Your task to perform on an android device: Go to ESPN.com Image 0: 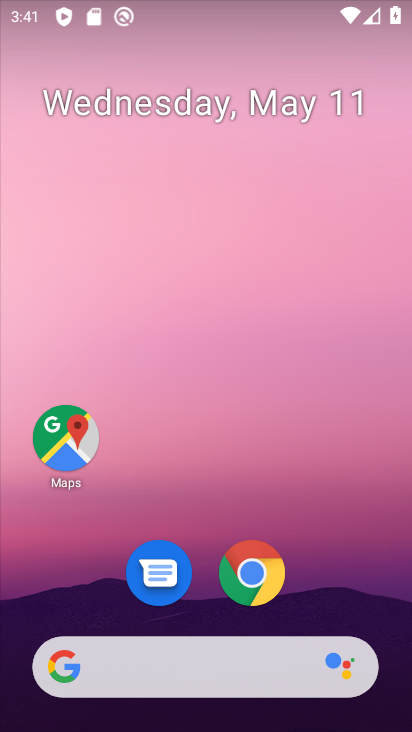
Step 0: click (254, 583)
Your task to perform on an android device: Go to ESPN.com Image 1: 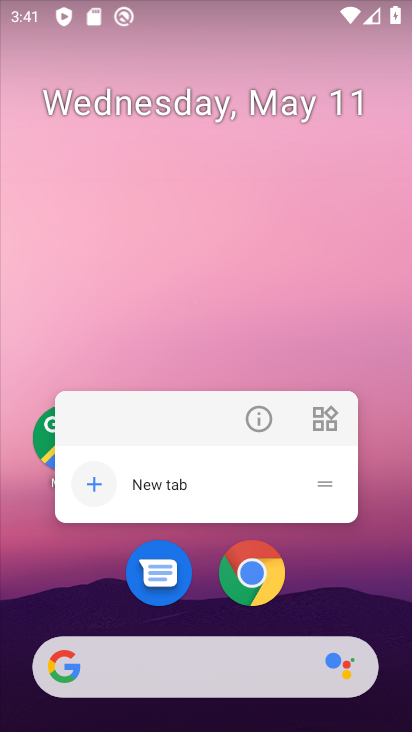
Step 1: click (252, 583)
Your task to perform on an android device: Go to ESPN.com Image 2: 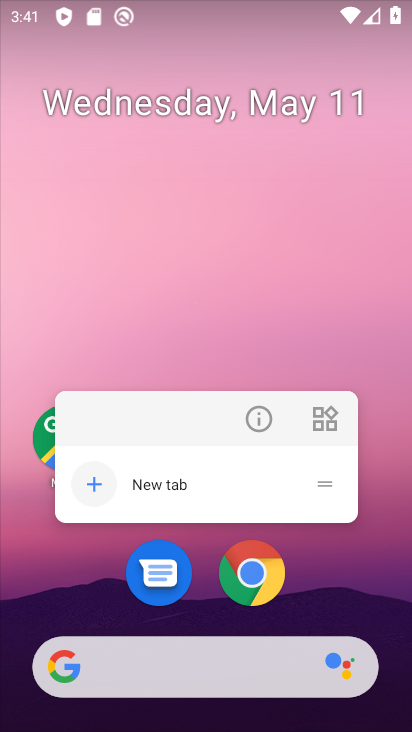
Step 2: click (266, 571)
Your task to perform on an android device: Go to ESPN.com Image 3: 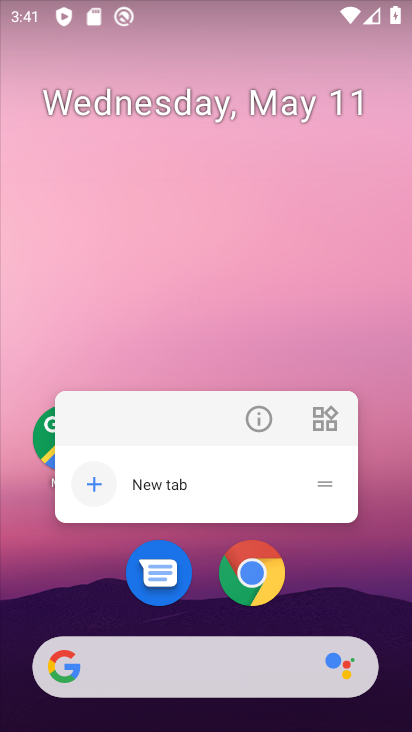
Step 3: click (256, 581)
Your task to perform on an android device: Go to ESPN.com Image 4: 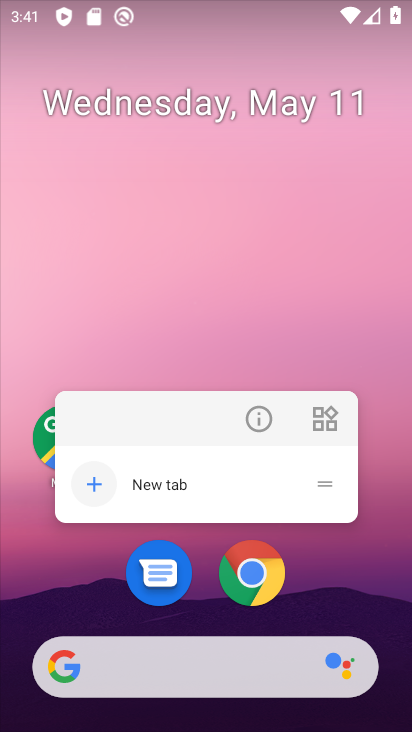
Step 4: click (259, 596)
Your task to perform on an android device: Go to ESPN.com Image 5: 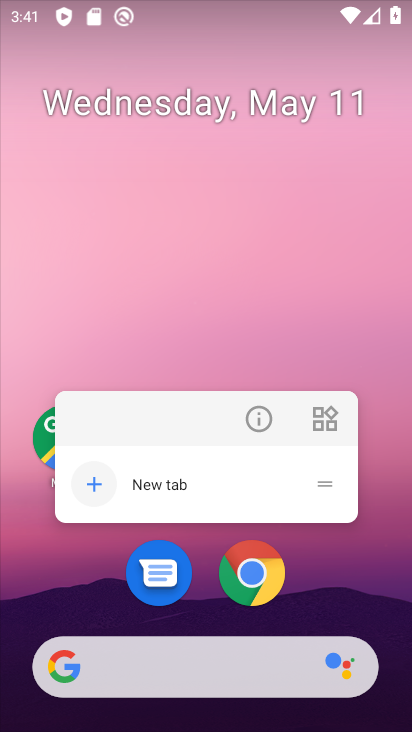
Step 5: click (257, 596)
Your task to perform on an android device: Go to ESPN.com Image 6: 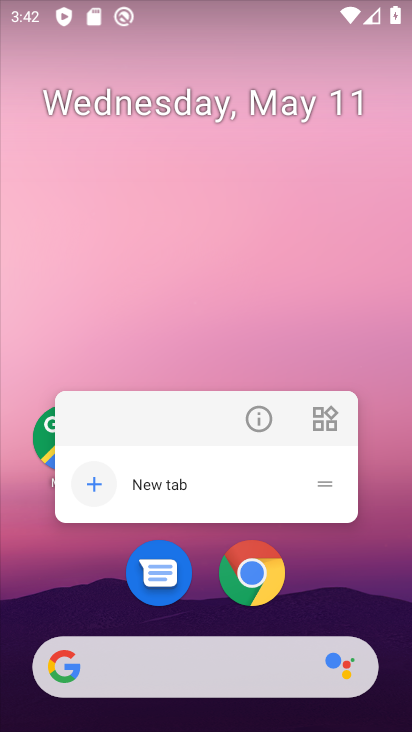
Step 6: click (255, 577)
Your task to perform on an android device: Go to ESPN.com Image 7: 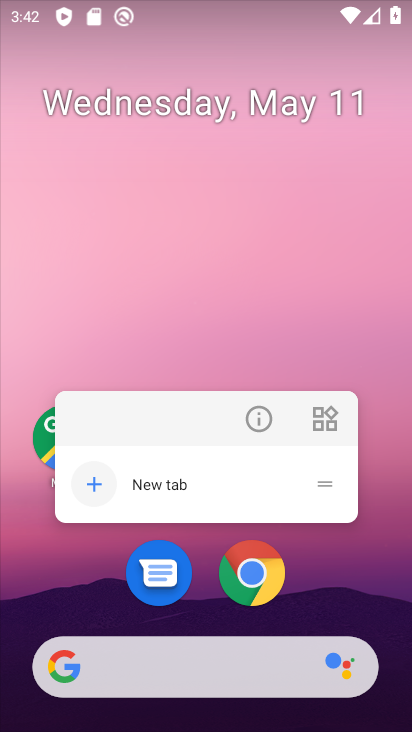
Step 7: drag from (318, 615) to (410, 261)
Your task to perform on an android device: Go to ESPN.com Image 8: 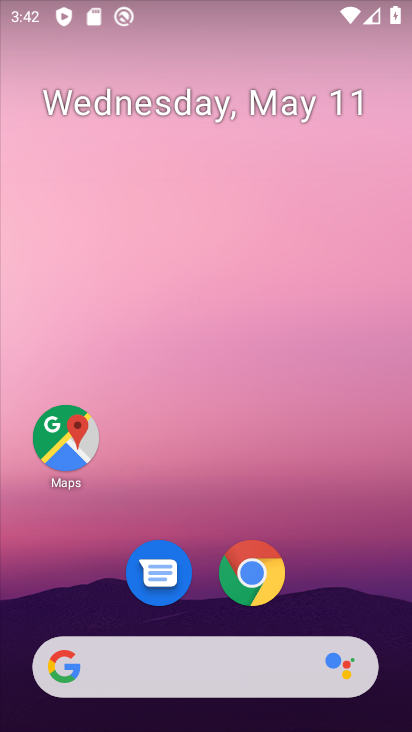
Step 8: click (274, 584)
Your task to perform on an android device: Go to ESPN.com Image 9: 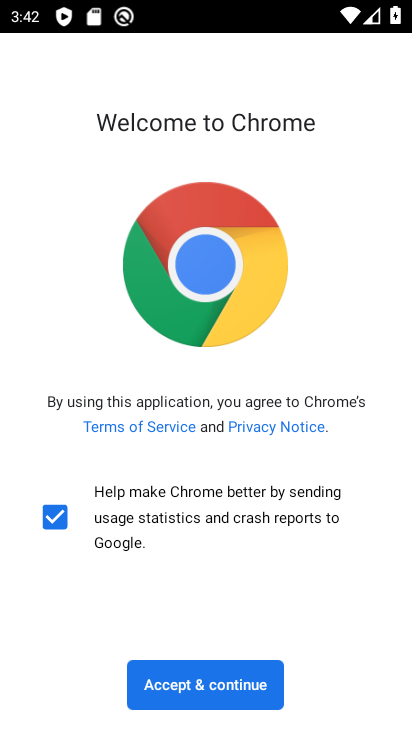
Step 9: click (228, 705)
Your task to perform on an android device: Go to ESPN.com Image 10: 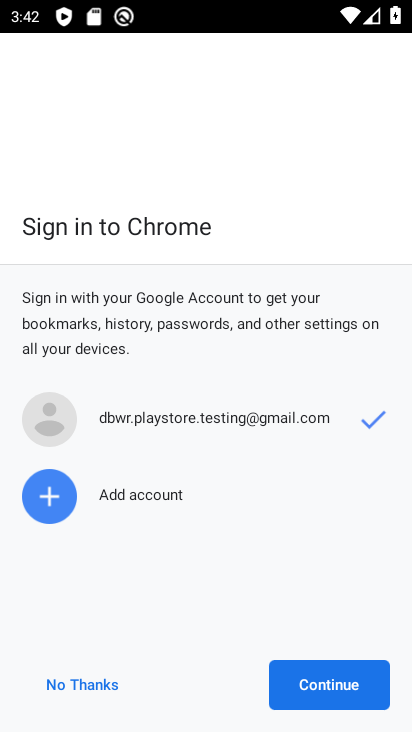
Step 10: click (315, 685)
Your task to perform on an android device: Go to ESPN.com Image 11: 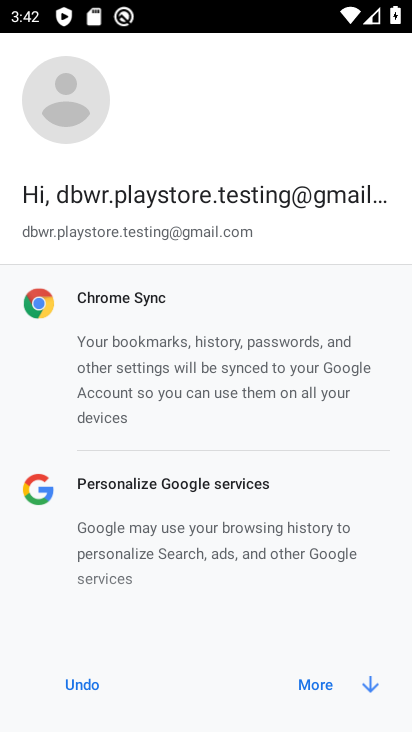
Step 11: click (350, 684)
Your task to perform on an android device: Go to ESPN.com Image 12: 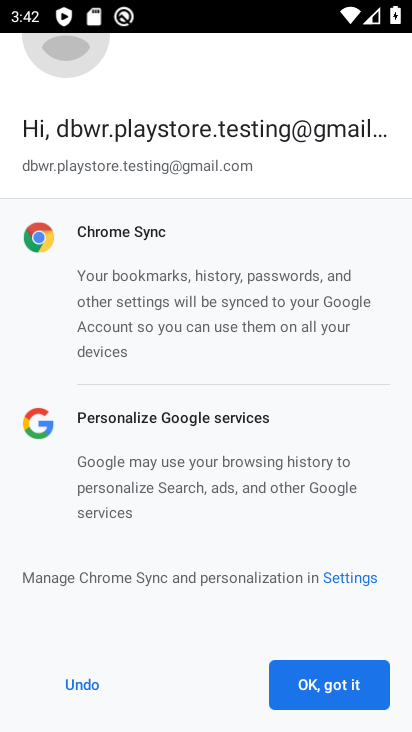
Step 12: click (350, 684)
Your task to perform on an android device: Go to ESPN.com Image 13: 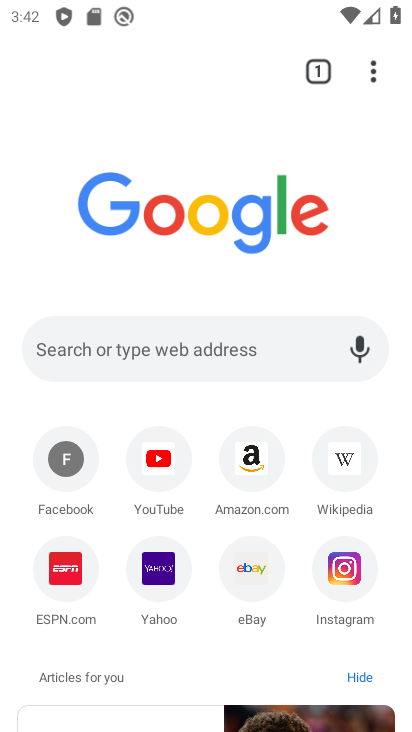
Step 13: click (70, 582)
Your task to perform on an android device: Go to ESPN.com Image 14: 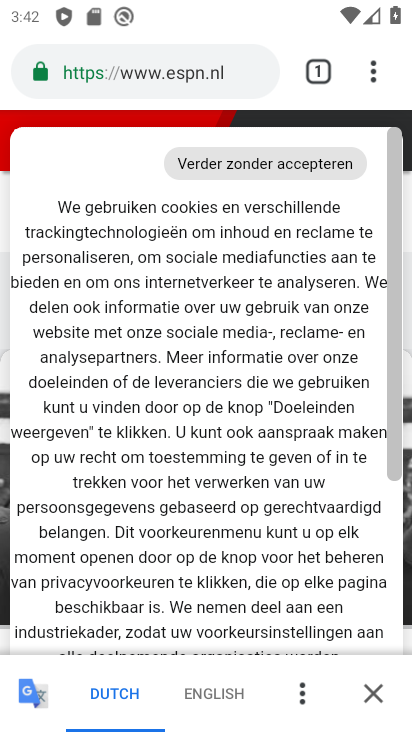
Step 14: click (229, 696)
Your task to perform on an android device: Go to ESPN.com Image 15: 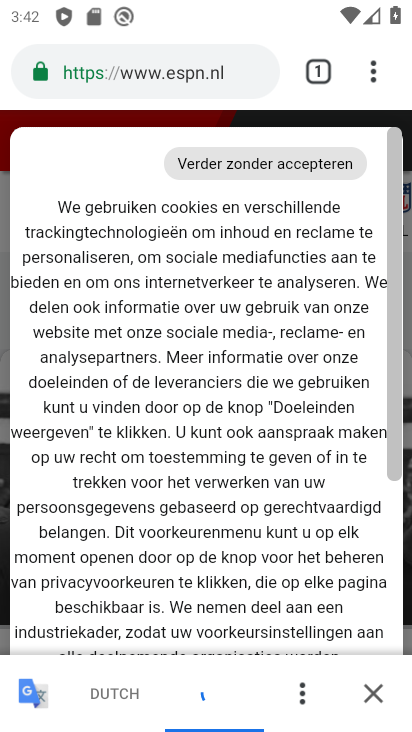
Step 15: drag from (216, 602) to (348, 220)
Your task to perform on an android device: Go to ESPN.com Image 16: 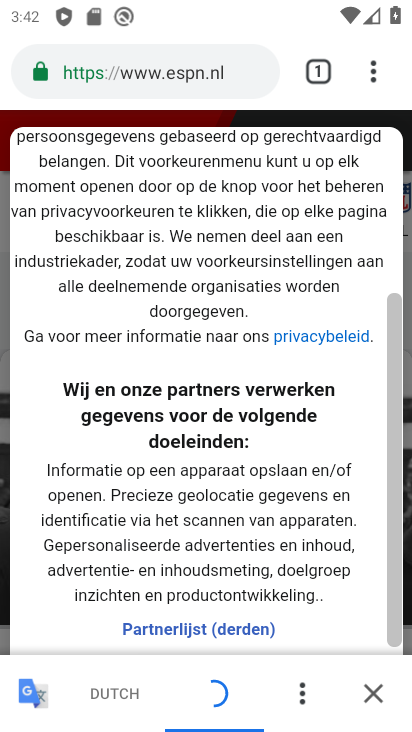
Step 16: drag from (226, 624) to (335, 213)
Your task to perform on an android device: Go to ESPN.com Image 17: 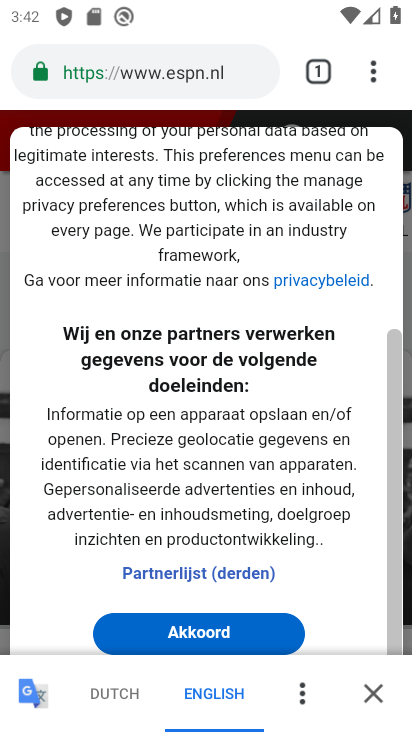
Step 17: click (382, 712)
Your task to perform on an android device: Go to ESPN.com Image 18: 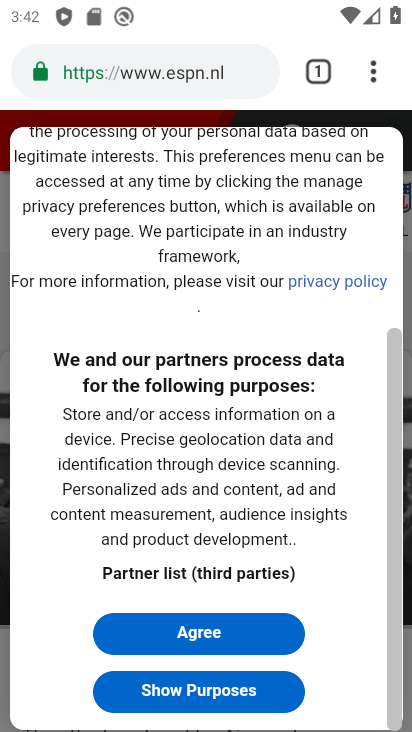
Step 18: click (279, 625)
Your task to perform on an android device: Go to ESPN.com Image 19: 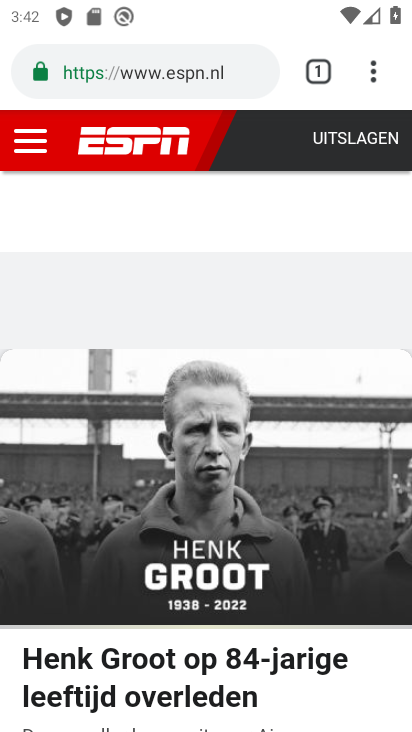
Step 19: task complete